Your task to perform on an android device: check battery use Image 0: 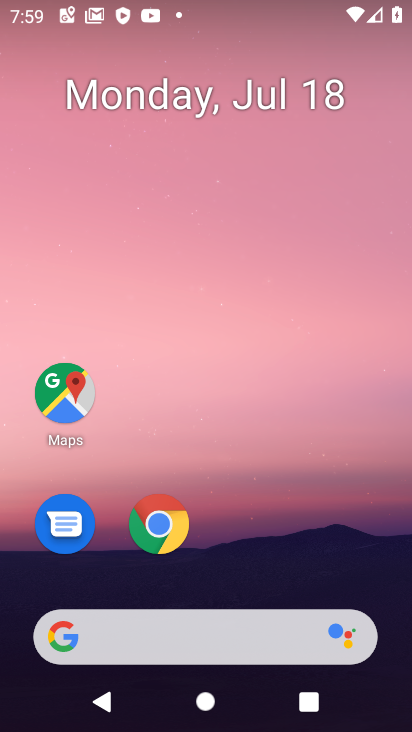
Step 0: drag from (317, 398) to (339, 14)
Your task to perform on an android device: check battery use Image 1: 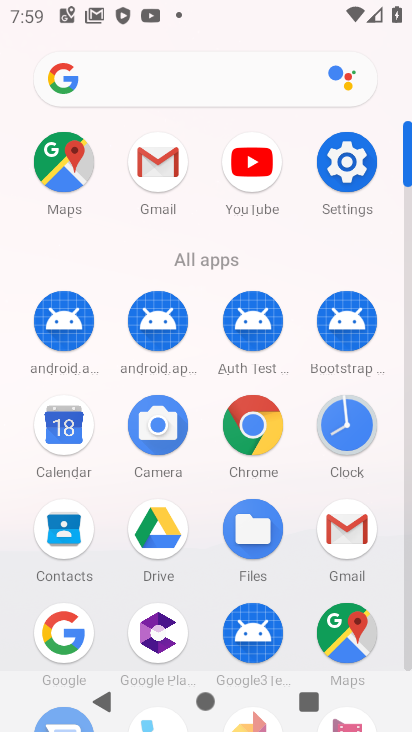
Step 1: click (349, 165)
Your task to perform on an android device: check battery use Image 2: 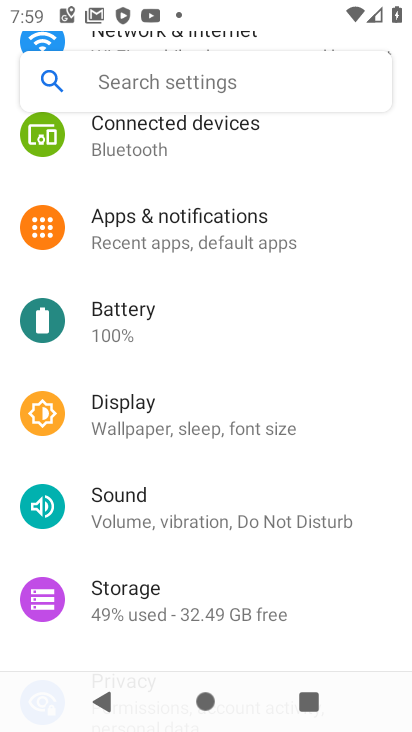
Step 2: click (136, 316)
Your task to perform on an android device: check battery use Image 3: 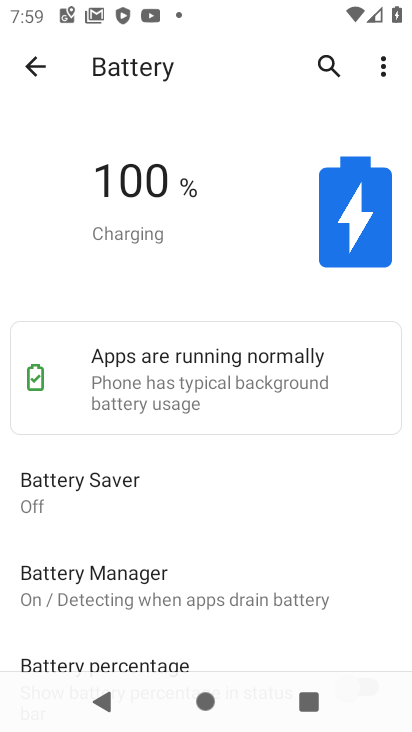
Step 3: click (375, 55)
Your task to perform on an android device: check battery use Image 4: 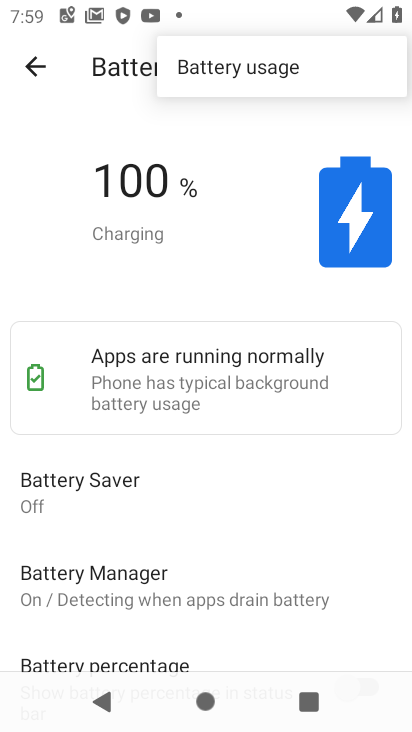
Step 4: click (275, 67)
Your task to perform on an android device: check battery use Image 5: 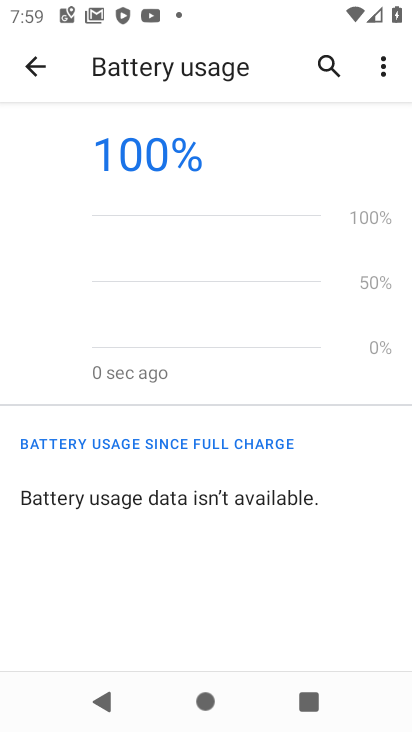
Step 5: task complete